Your task to perform on an android device: What's the weather going to be tomorrow? Image 0: 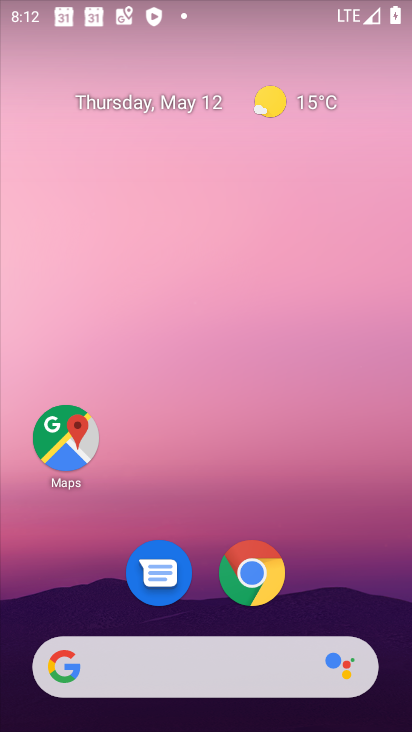
Step 0: click (256, 650)
Your task to perform on an android device: What's the weather going to be tomorrow? Image 1: 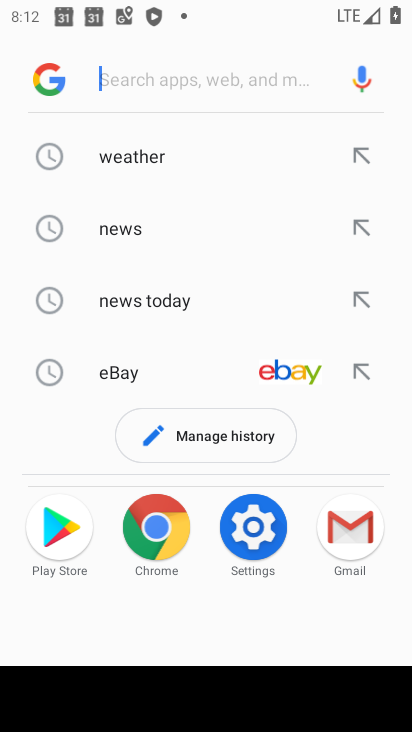
Step 1: click (142, 145)
Your task to perform on an android device: What's the weather going to be tomorrow? Image 2: 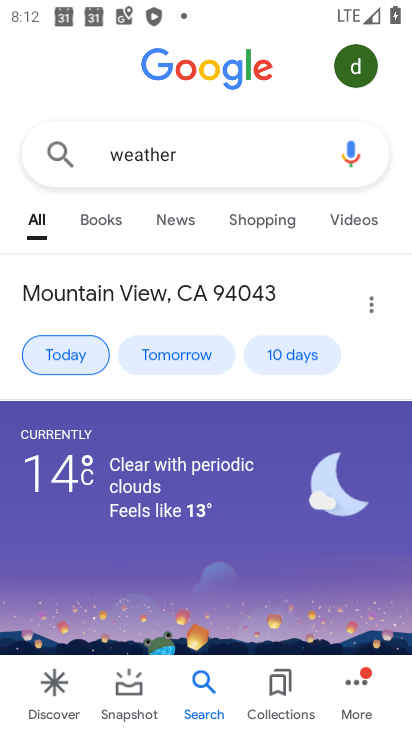
Step 2: click (175, 349)
Your task to perform on an android device: What's the weather going to be tomorrow? Image 3: 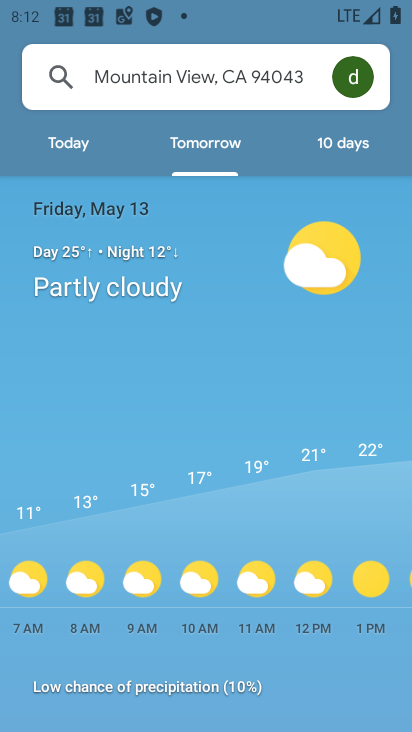
Step 3: task complete